Your task to perform on an android device: delete the emails in spam in the gmail app Image 0: 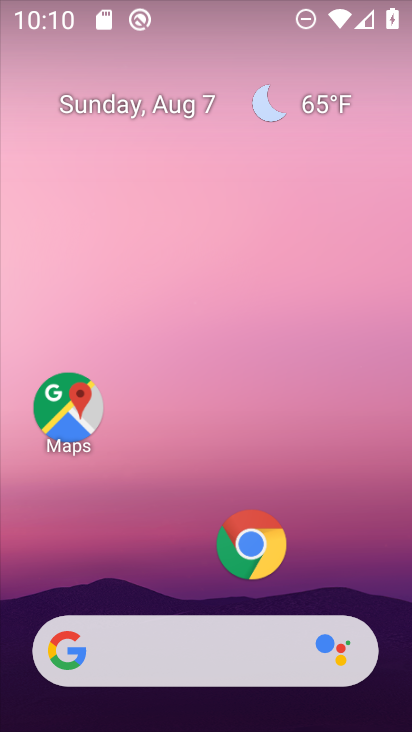
Step 0: drag from (220, 607) to (395, 19)
Your task to perform on an android device: delete the emails in spam in the gmail app Image 1: 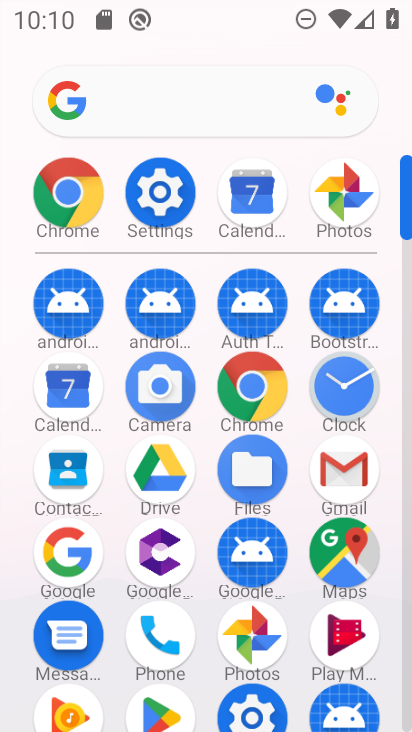
Step 1: click (336, 476)
Your task to perform on an android device: delete the emails in spam in the gmail app Image 2: 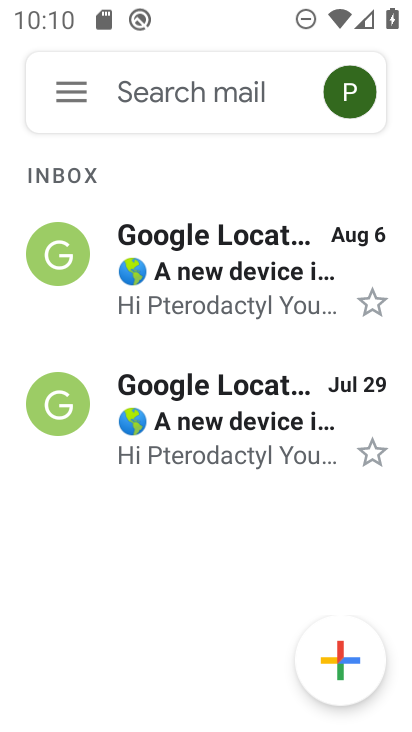
Step 2: click (66, 82)
Your task to perform on an android device: delete the emails in spam in the gmail app Image 3: 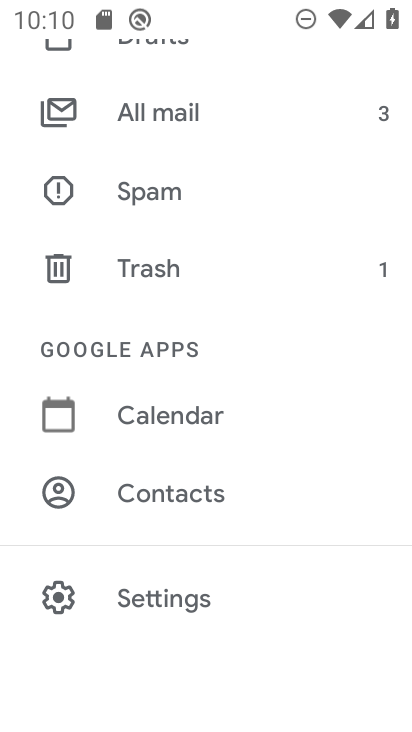
Step 3: drag from (145, 566) to (146, 119)
Your task to perform on an android device: delete the emails in spam in the gmail app Image 4: 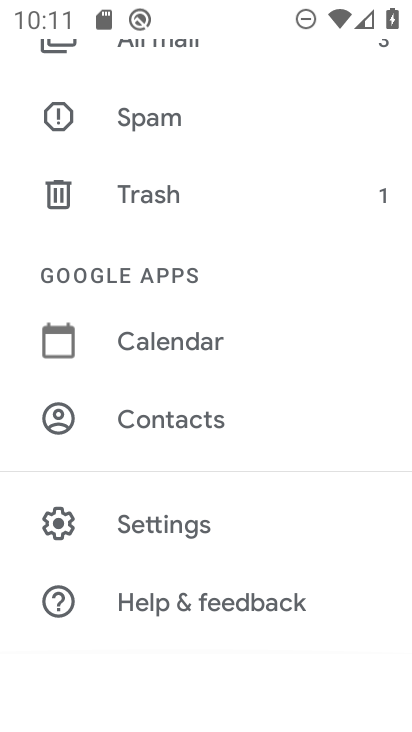
Step 4: click (146, 123)
Your task to perform on an android device: delete the emails in spam in the gmail app Image 5: 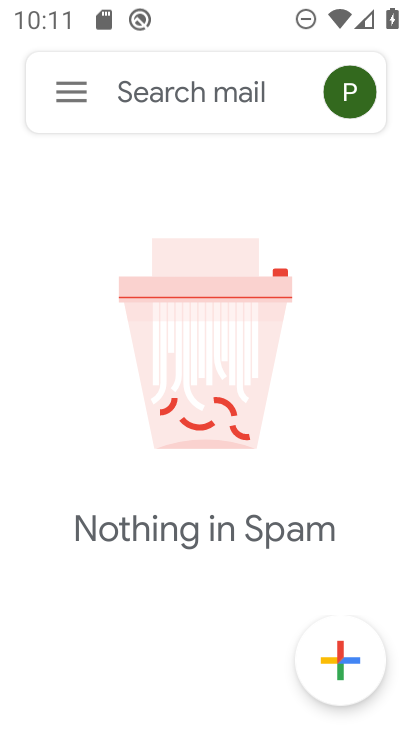
Step 5: task complete